Your task to perform on an android device: Open the stopwatch Image 0: 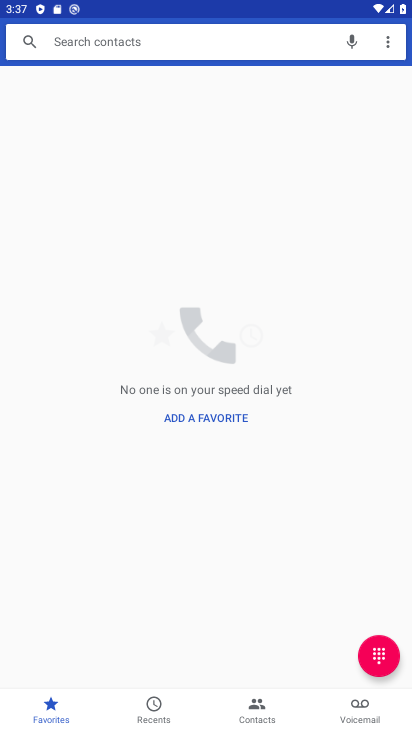
Step 0: press back button
Your task to perform on an android device: Open the stopwatch Image 1: 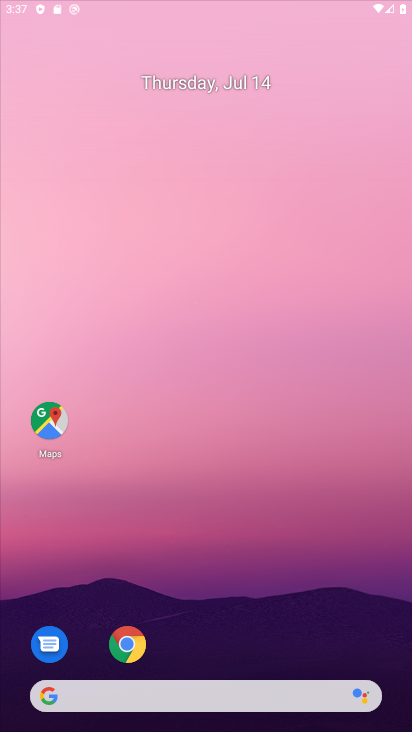
Step 1: drag from (232, 636) to (224, 2)
Your task to perform on an android device: Open the stopwatch Image 2: 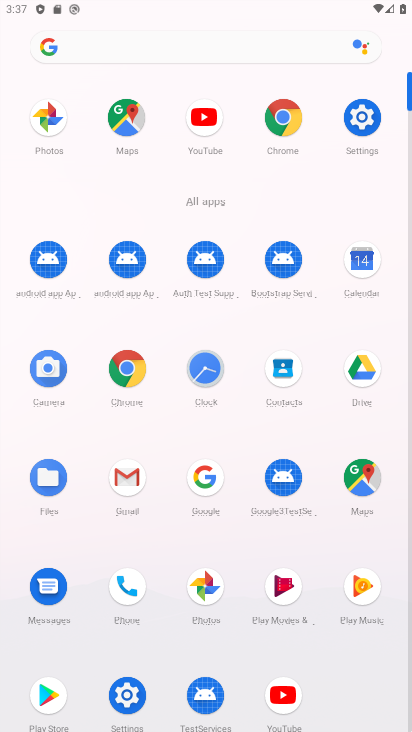
Step 2: click (364, 124)
Your task to perform on an android device: Open the stopwatch Image 3: 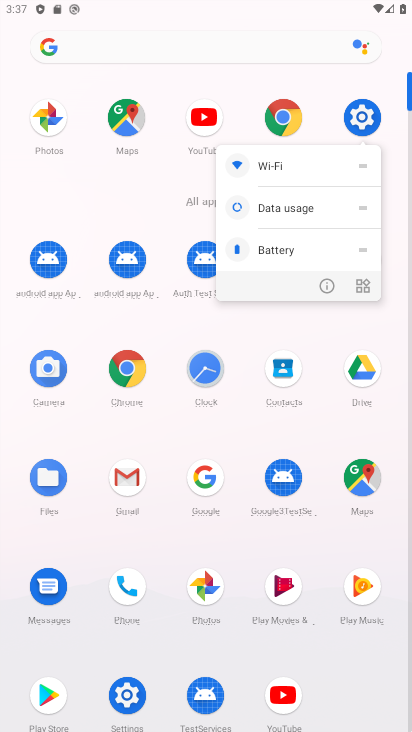
Step 3: click (211, 387)
Your task to perform on an android device: Open the stopwatch Image 4: 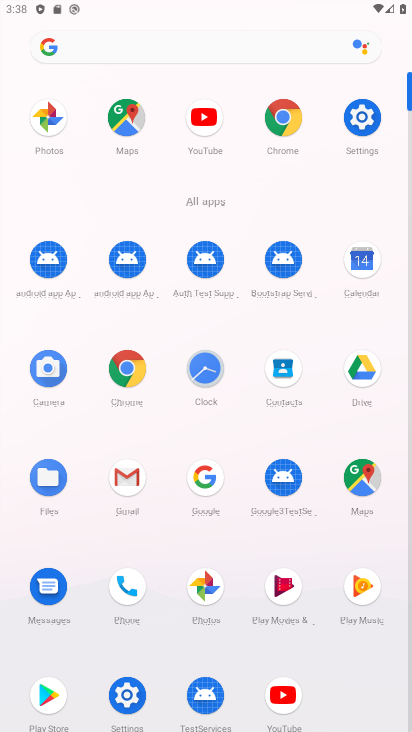
Step 4: click (191, 365)
Your task to perform on an android device: Open the stopwatch Image 5: 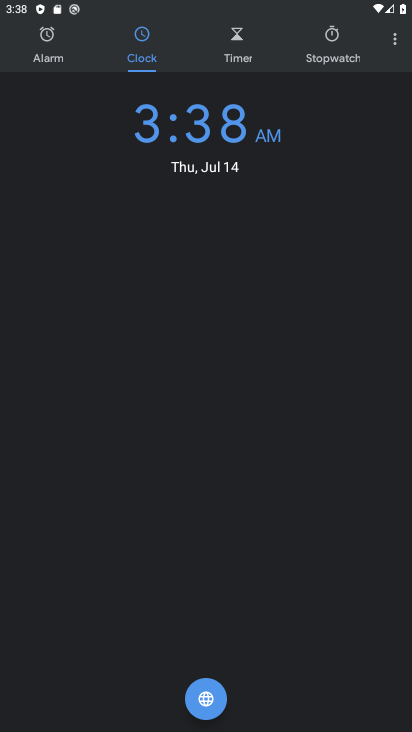
Step 5: click (332, 43)
Your task to perform on an android device: Open the stopwatch Image 6: 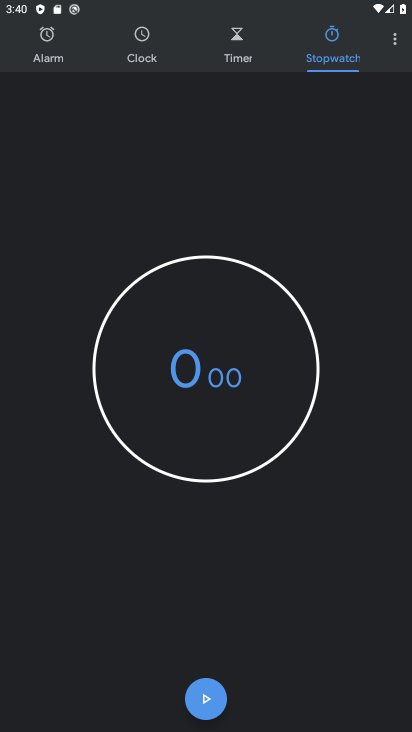
Step 6: task complete